Your task to perform on an android device: Open Google Image 0: 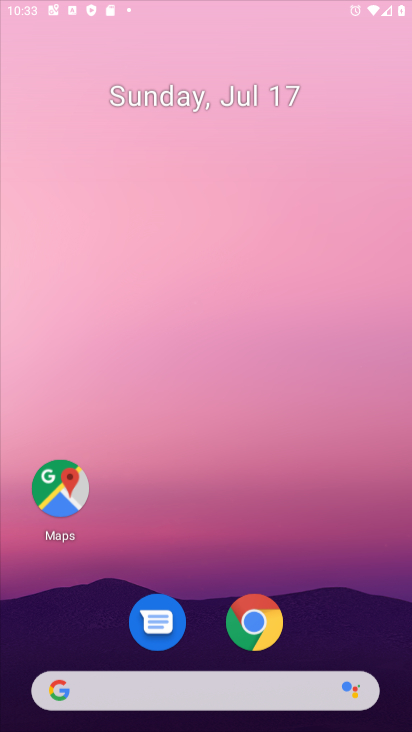
Step 0: click (172, 416)
Your task to perform on an android device: Open Google Image 1: 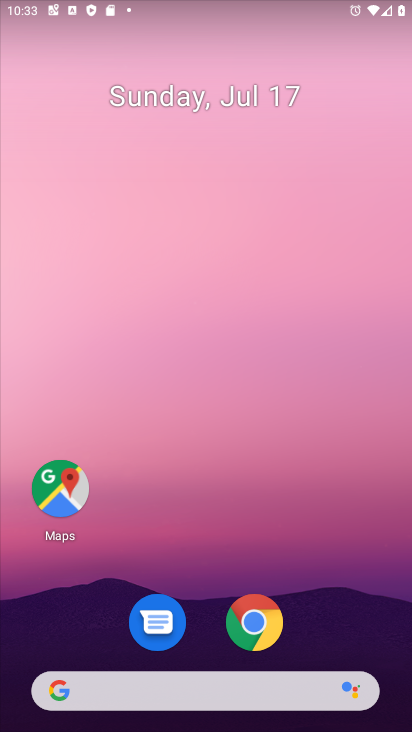
Step 1: drag from (269, 731) to (337, 3)
Your task to perform on an android device: Open Google Image 2: 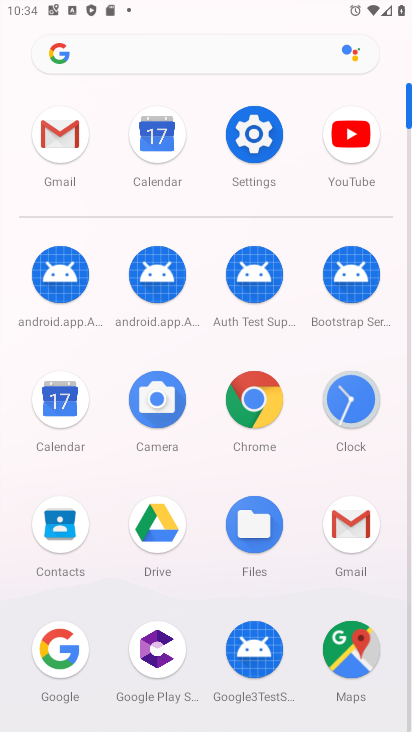
Step 2: click (60, 650)
Your task to perform on an android device: Open Google Image 3: 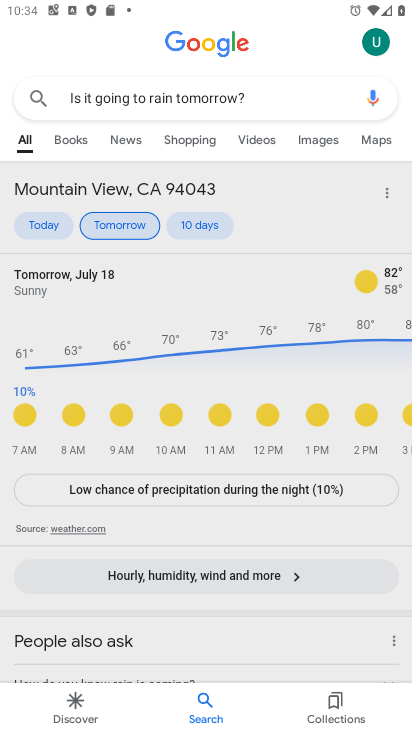
Step 3: task complete